Your task to perform on an android device: change notifications settings Image 0: 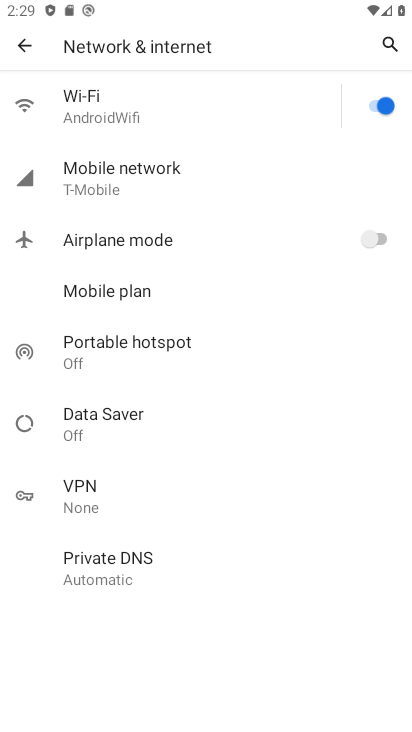
Step 0: press home button
Your task to perform on an android device: change notifications settings Image 1: 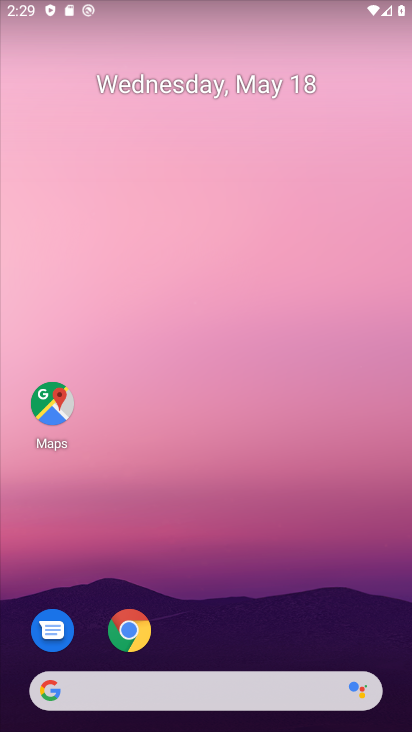
Step 1: drag from (197, 643) to (209, 93)
Your task to perform on an android device: change notifications settings Image 2: 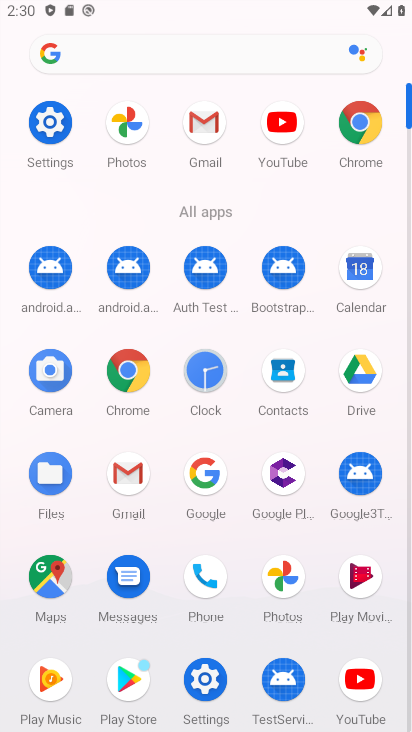
Step 2: click (52, 114)
Your task to perform on an android device: change notifications settings Image 3: 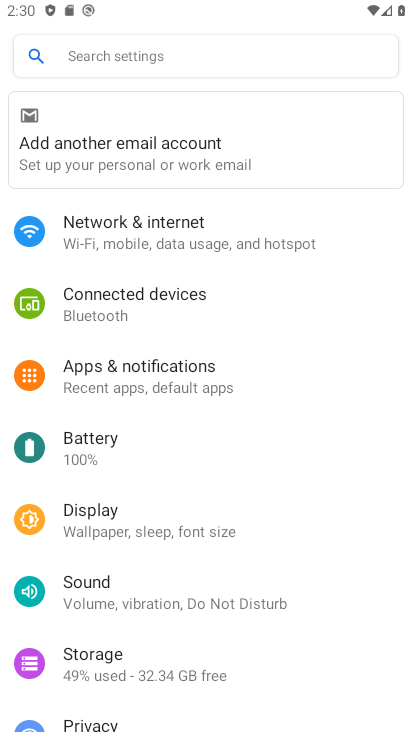
Step 3: click (176, 367)
Your task to perform on an android device: change notifications settings Image 4: 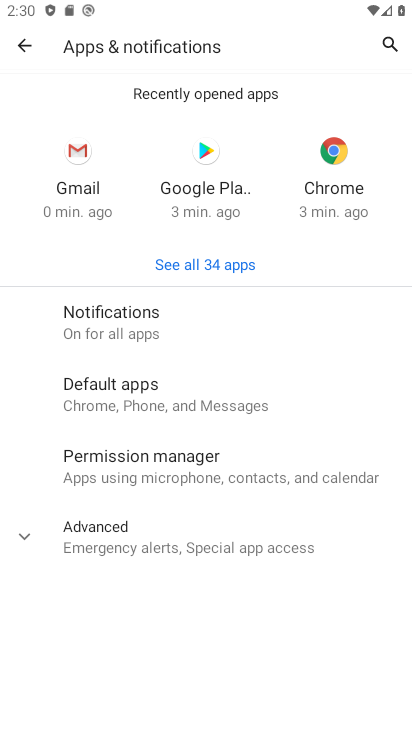
Step 4: click (174, 310)
Your task to perform on an android device: change notifications settings Image 5: 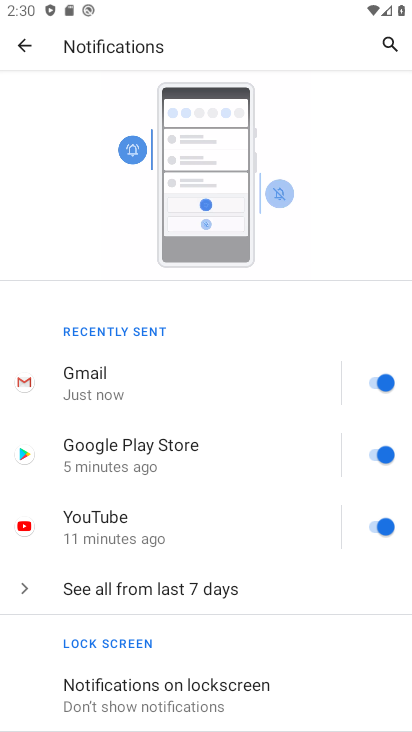
Step 5: drag from (231, 651) to (260, 268)
Your task to perform on an android device: change notifications settings Image 6: 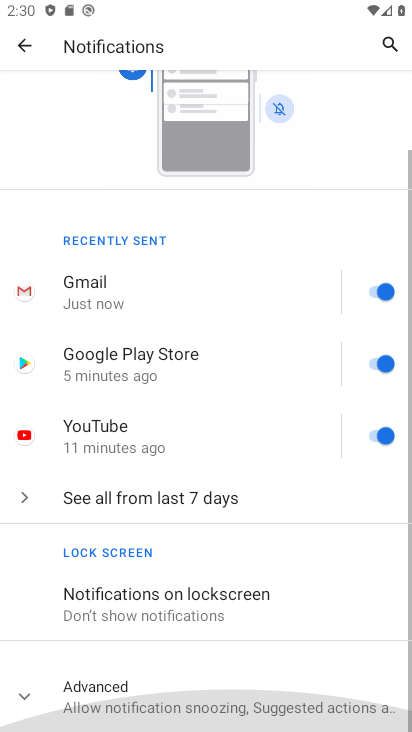
Step 6: click (279, 121)
Your task to perform on an android device: change notifications settings Image 7: 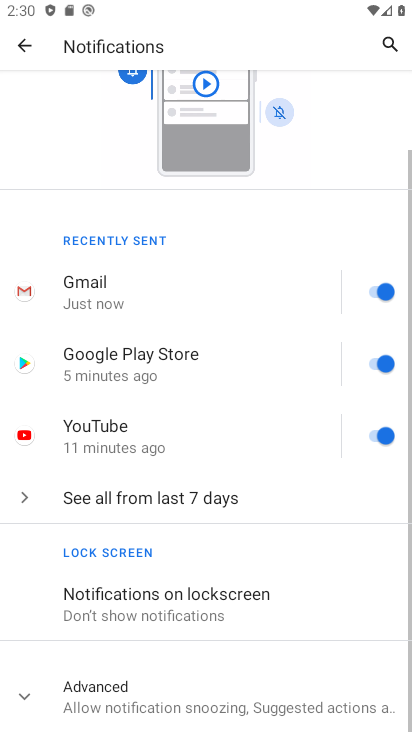
Step 7: click (24, 697)
Your task to perform on an android device: change notifications settings Image 8: 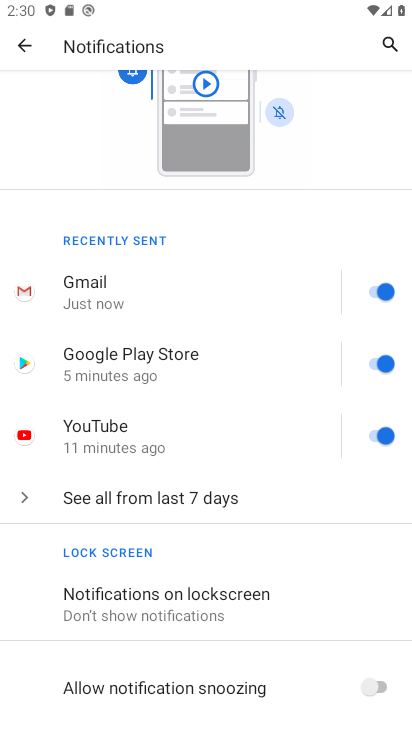
Step 8: drag from (238, 640) to (240, 585)
Your task to perform on an android device: change notifications settings Image 9: 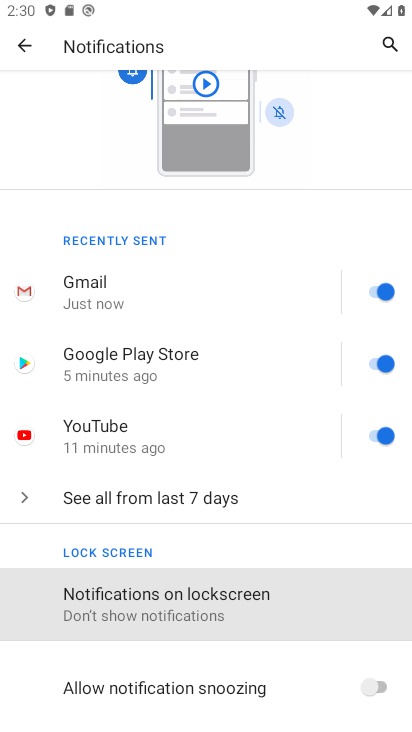
Step 9: drag from (253, 402) to (263, 344)
Your task to perform on an android device: change notifications settings Image 10: 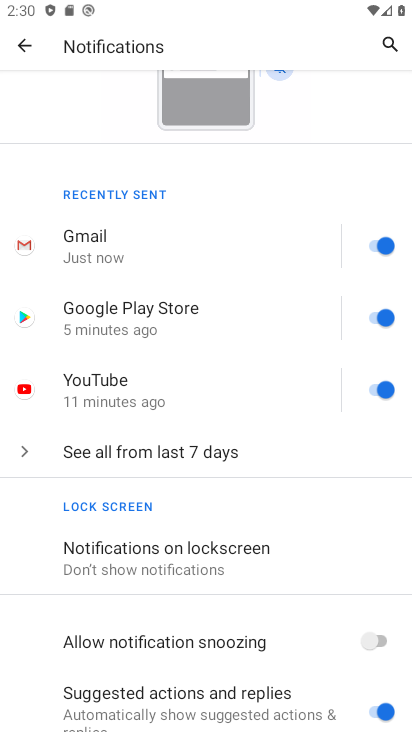
Step 10: click (382, 236)
Your task to perform on an android device: change notifications settings Image 11: 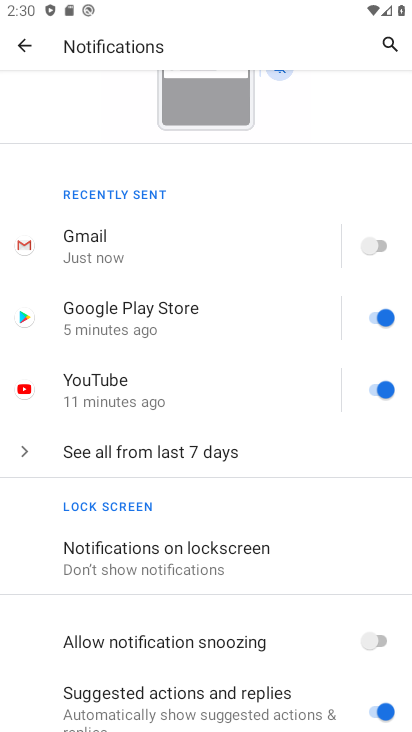
Step 11: click (380, 318)
Your task to perform on an android device: change notifications settings Image 12: 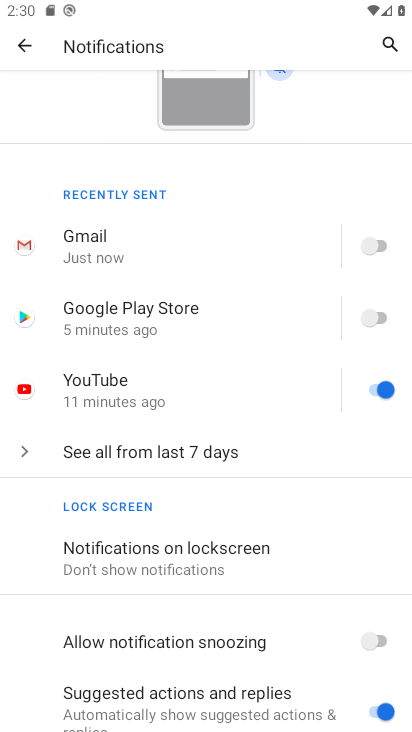
Step 12: click (377, 390)
Your task to perform on an android device: change notifications settings Image 13: 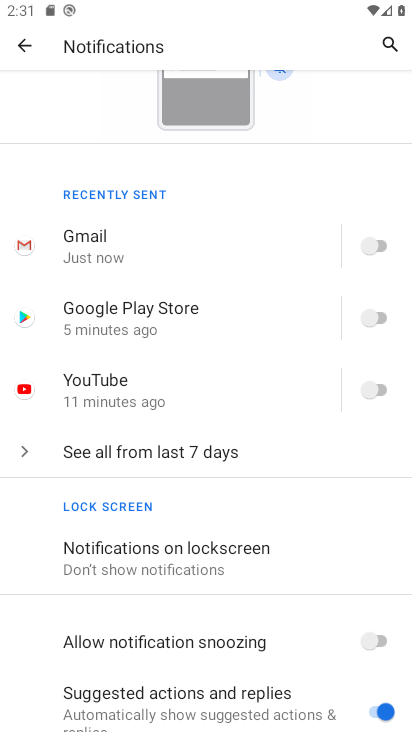
Step 13: click (379, 708)
Your task to perform on an android device: change notifications settings Image 14: 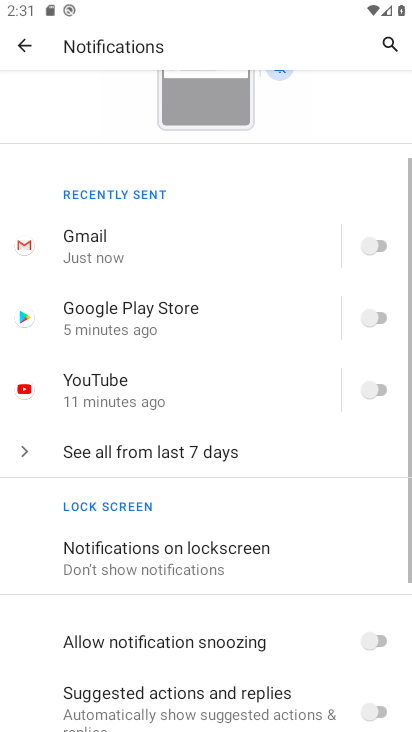
Step 14: task complete